Your task to perform on an android device: all mails in gmail Image 0: 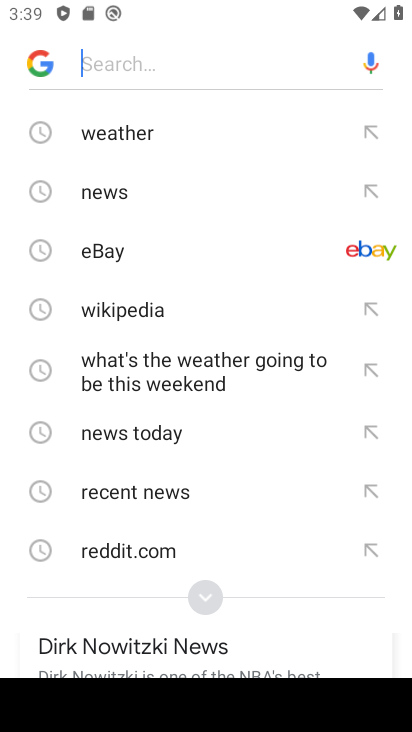
Step 0: press back button
Your task to perform on an android device: all mails in gmail Image 1: 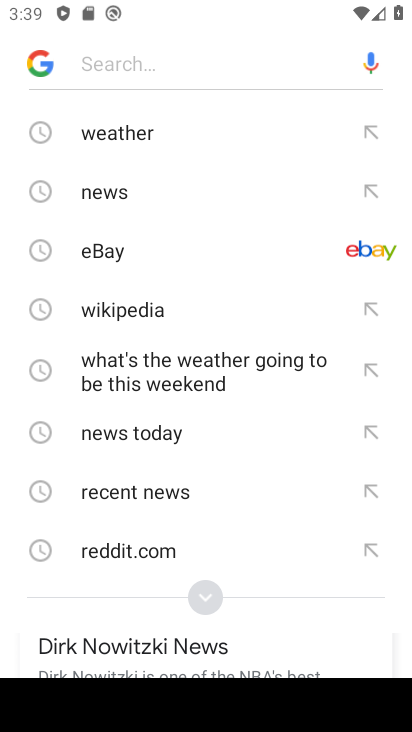
Step 1: press back button
Your task to perform on an android device: all mails in gmail Image 2: 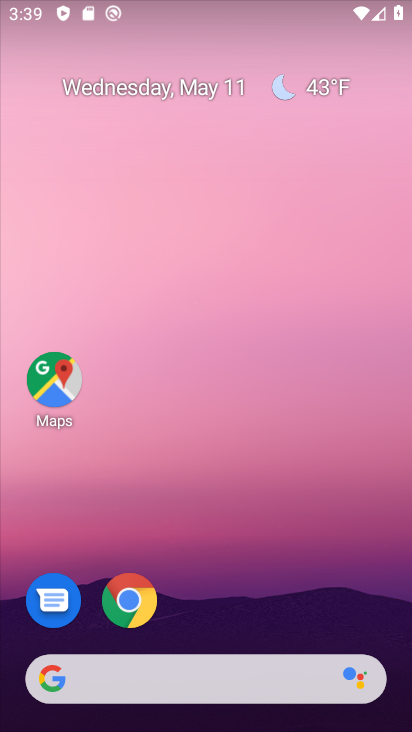
Step 2: press back button
Your task to perform on an android device: all mails in gmail Image 3: 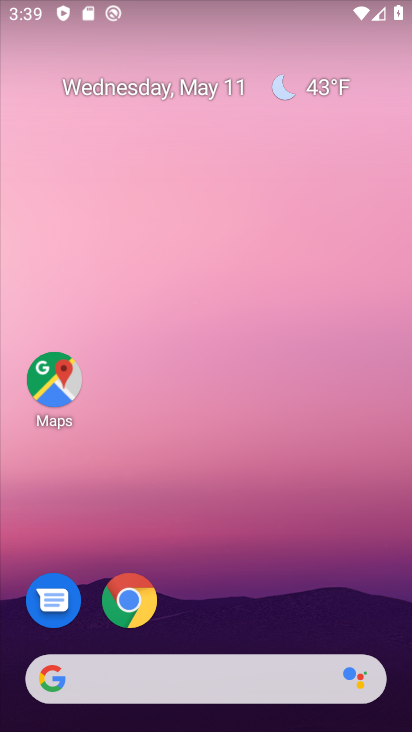
Step 3: press back button
Your task to perform on an android device: all mails in gmail Image 4: 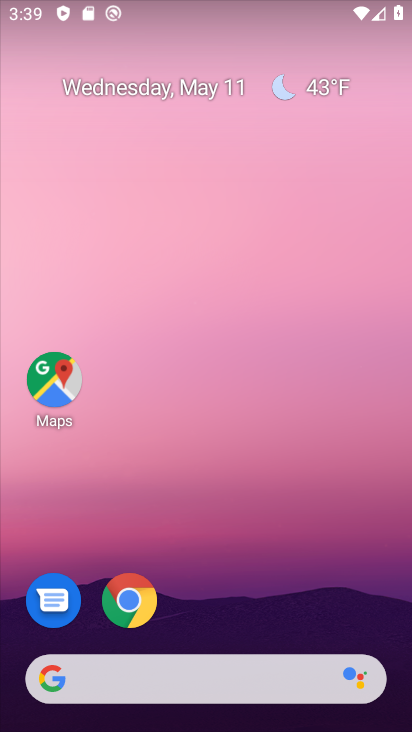
Step 4: drag from (246, 476) to (189, 220)
Your task to perform on an android device: all mails in gmail Image 5: 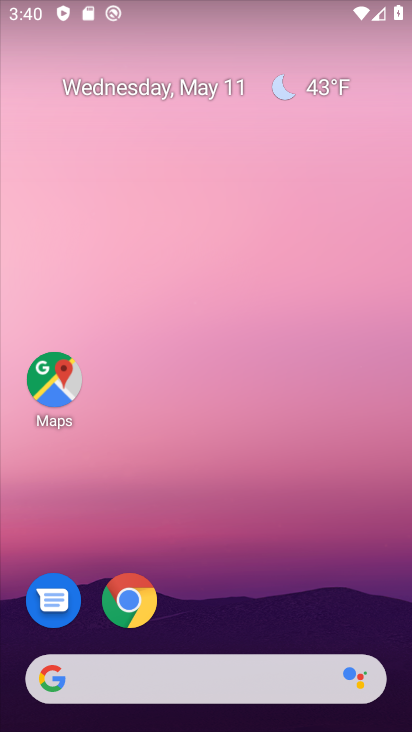
Step 5: drag from (256, 502) to (209, 220)
Your task to perform on an android device: all mails in gmail Image 6: 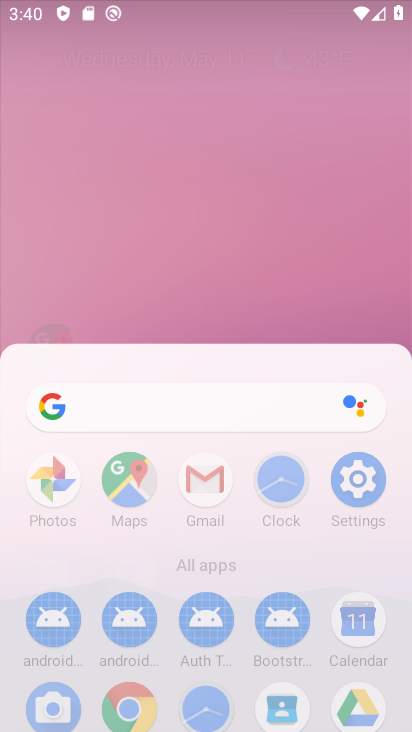
Step 6: click (305, 187)
Your task to perform on an android device: all mails in gmail Image 7: 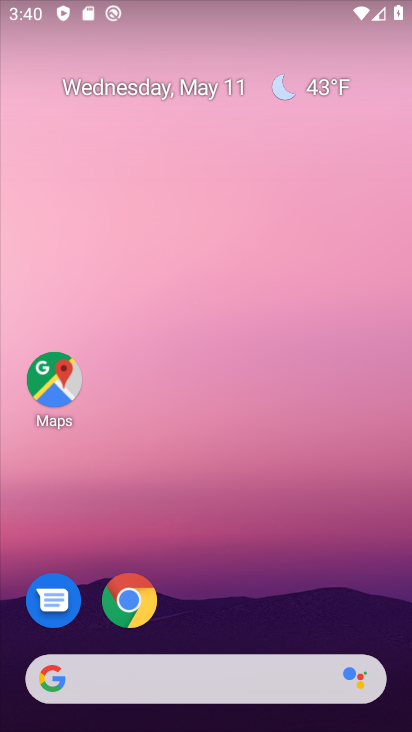
Step 7: drag from (262, 644) to (175, 103)
Your task to perform on an android device: all mails in gmail Image 8: 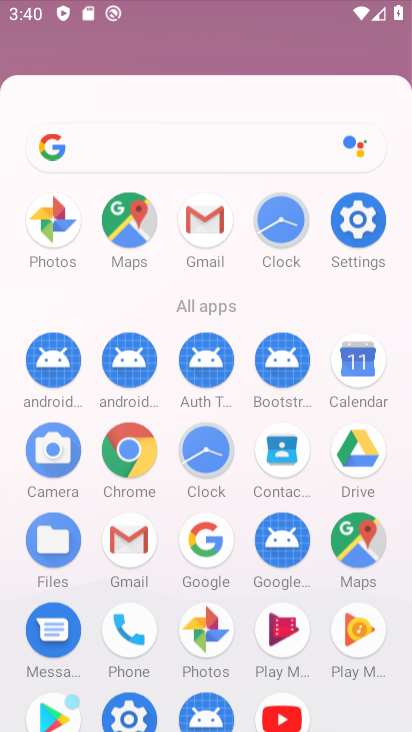
Step 8: drag from (238, 366) to (177, 50)
Your task to perform on an android device: all mails in gmail Image 9: 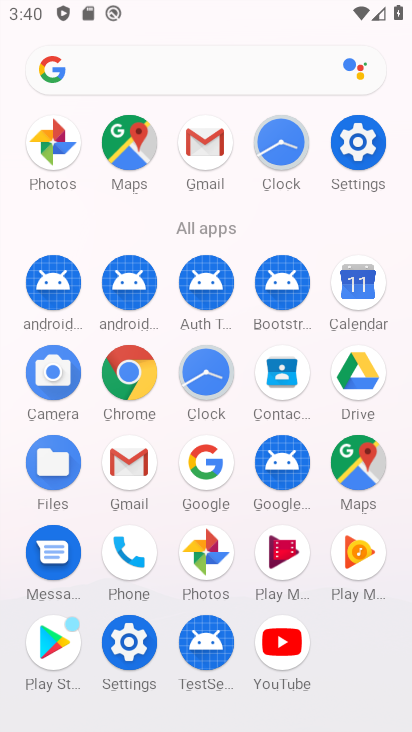
Step 9: click (192, 146)
Your task to perform on an android device: all mails in gmail Image 10: 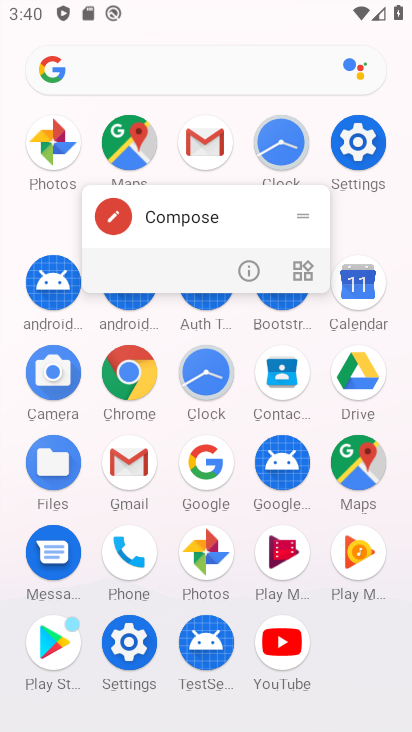
Step 10: click (203, 141)
Your task to perform on an android device: all mails in gmail Image 11: 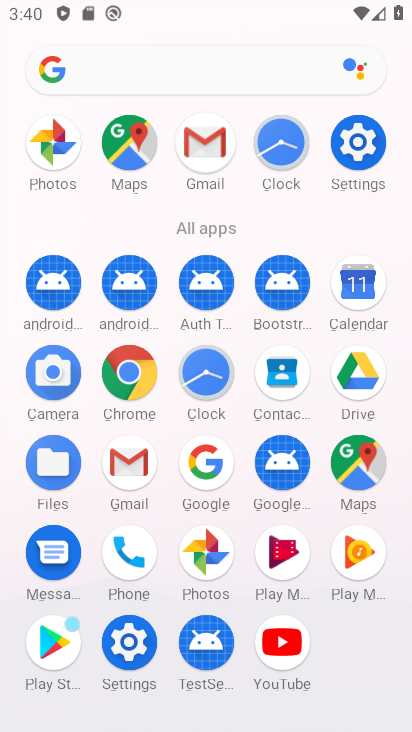
Step 11: click (205, 140)
Your task to perform on an android device: all mails in gmail Image 12: 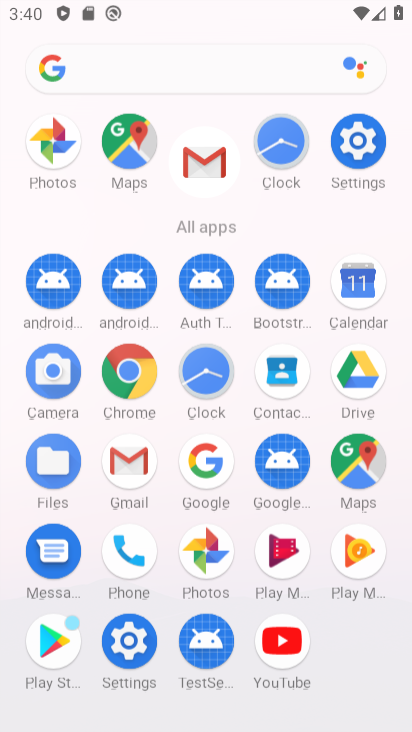
Step 12: click (207, 141)
Your task to perform on an android device: all mails in gmail Image 13: 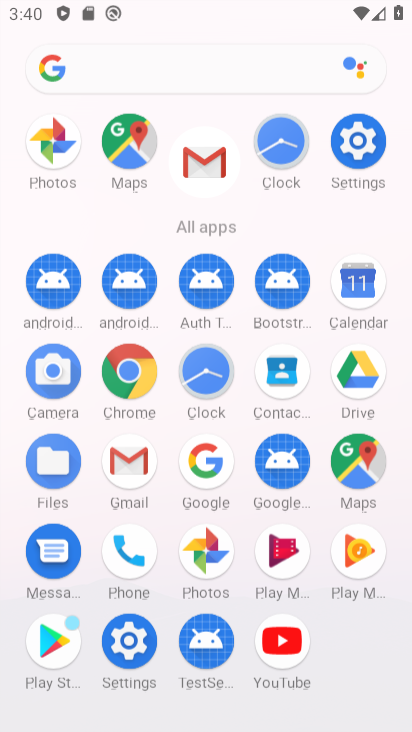
Step 13: click (208, 146)
Your task to perform on an android device: all mails in gmail Image 14: 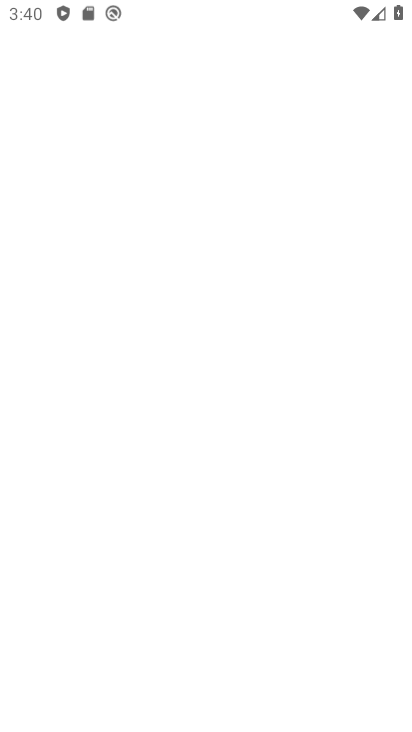
Step 14: click (209, 165)
Your task to perform on an android device: all mails in gmail Image 15: 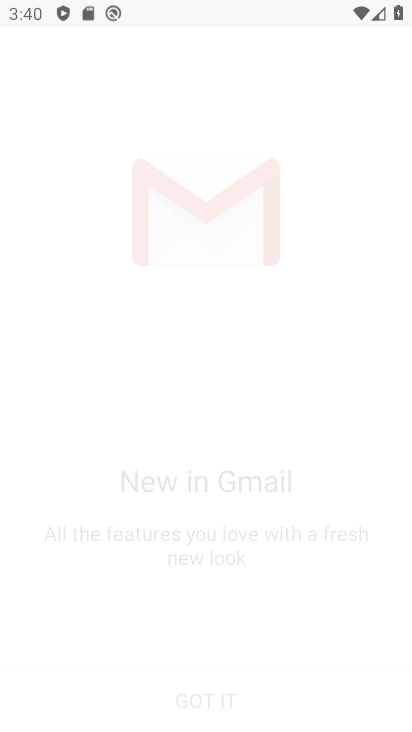
Step 15: click (202, 177)
Your task to perform on an android device: all mails in gmail Image 16: 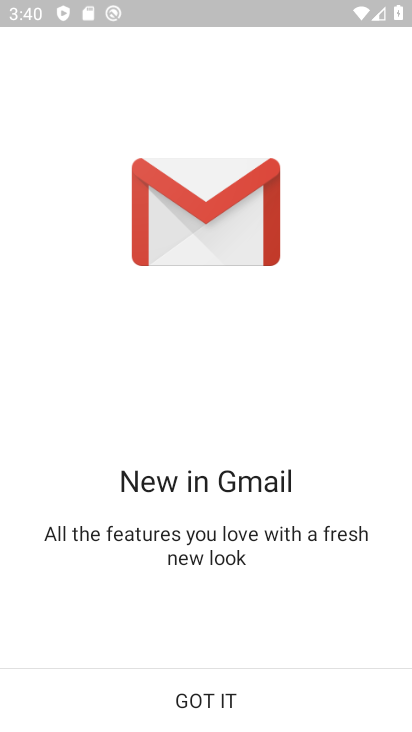
Step 16: click (212, 698)
Your task to perform on an android device: all mails in gmail Image 17: 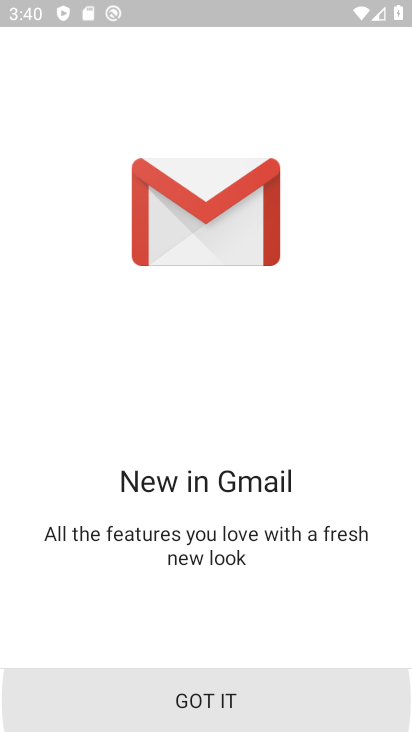
Step 17: click (212, 698)
Your task to perform on an android device: all mails in gmail Image 18: 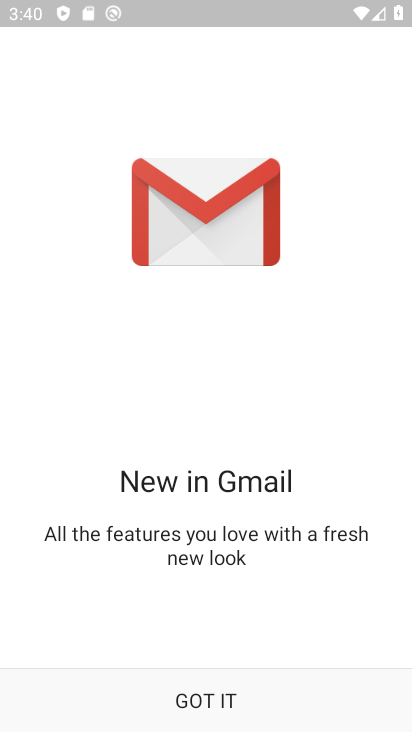
Step 18: click (213, 699)
Your task to perform on an android device: all mails in gmail Image 19: 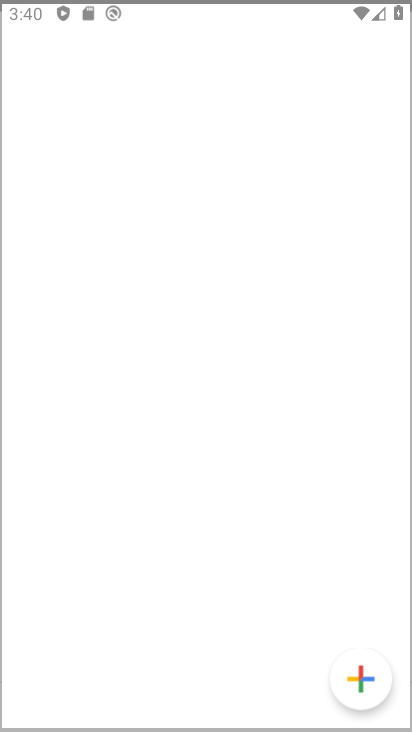
Step 19: click (208, 703)
Your task to perform on an android device: all mails in gmail Image 20: 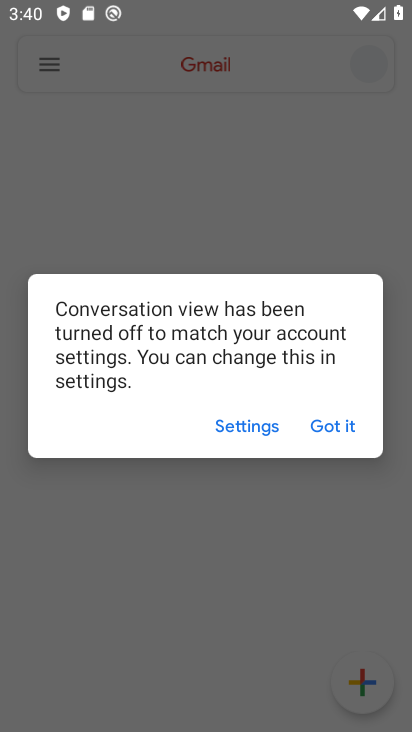
Step 20: click (329, 414)
Your task to perform on an android device: all mails in gmail Image 21: 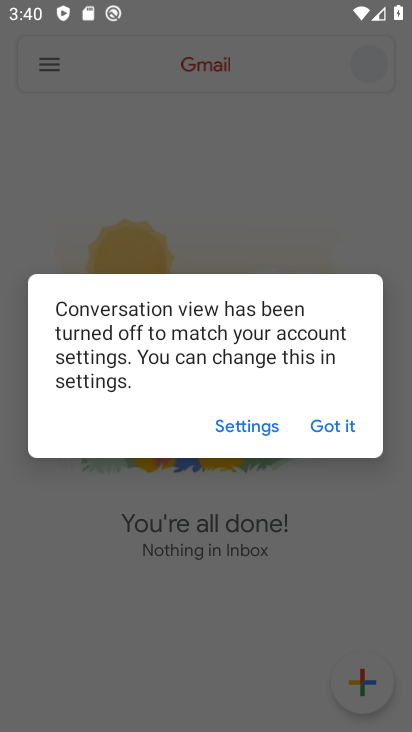
Step 21: click (333, 423)
Your task to perform on an android device: all mails in gmail Image 22: 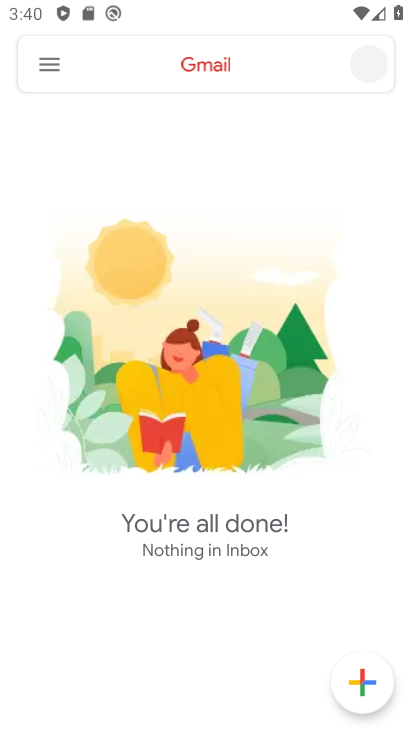
Step 22: click (334, 423)
Your task to perform on an android device: all mails in gmail Image 23: 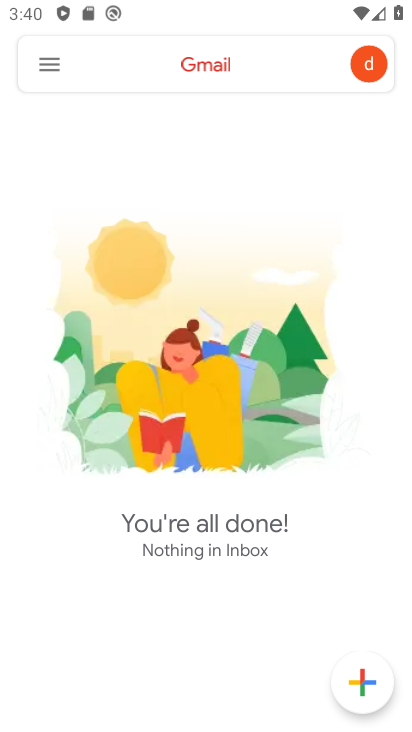
Step 23: click (334, 423)
Your task to perform on an android device: all mails in gmail Image 24: 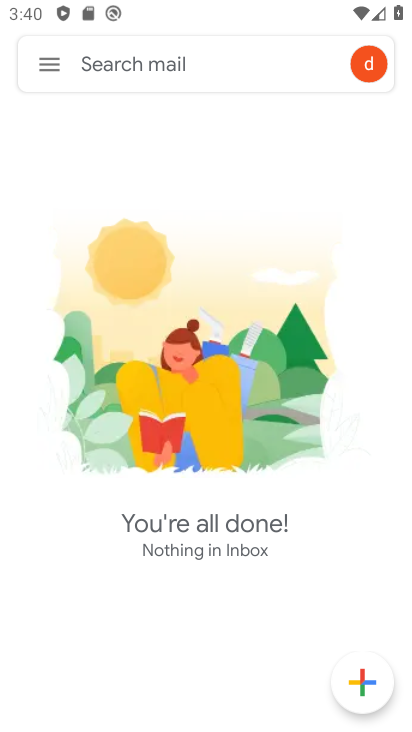
Step 24: click (47, 63)
Your task to perform on an android device: all mails in gmail Image 25: 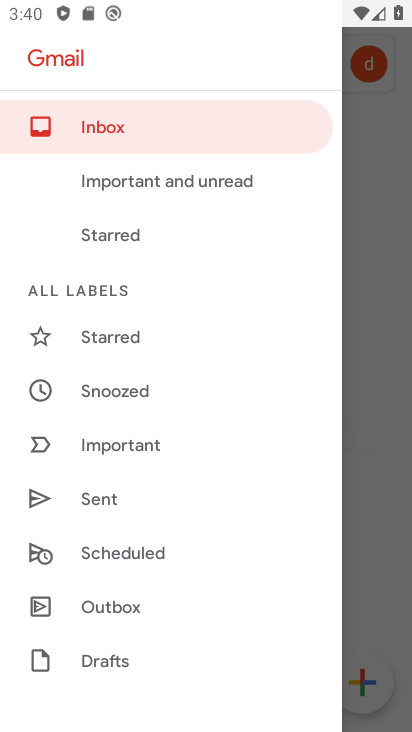
Step 25: drag from (142, 495) to (173, 206)
Your task to perform on an android device: all mails in gmail Image 26: 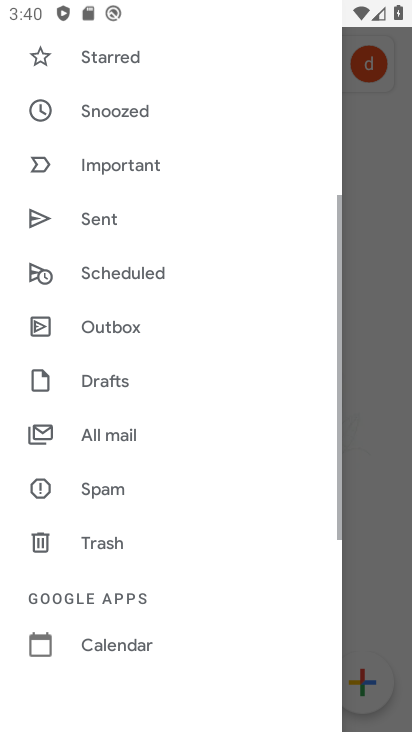
Step 26: drag from (115, 389) to (115, 218)
Your task to perform on an android device: all mails in gmail Image 27: 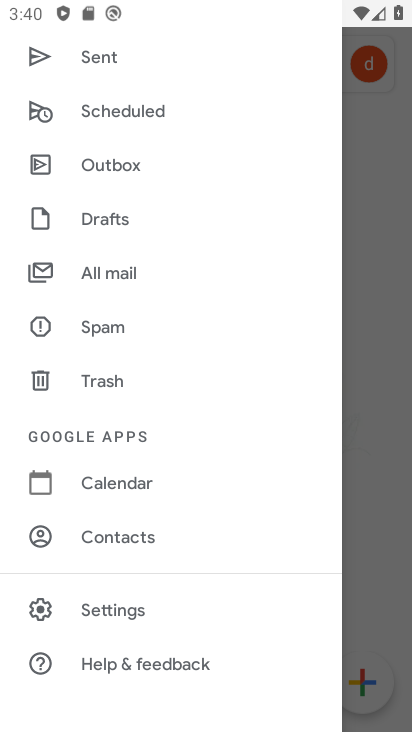
Step 27: click (107, 274)
Your task to perform on an android device: all mails in gmail Image 28: 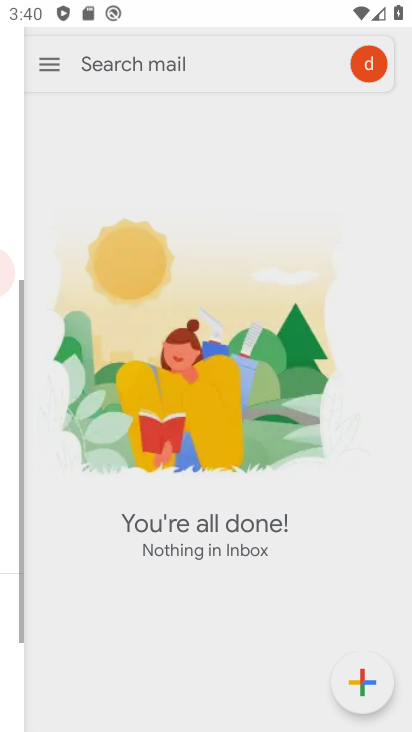
Step 28: click (108, 273)
Your task to perform on an android device: all mails in gmail Image 29: 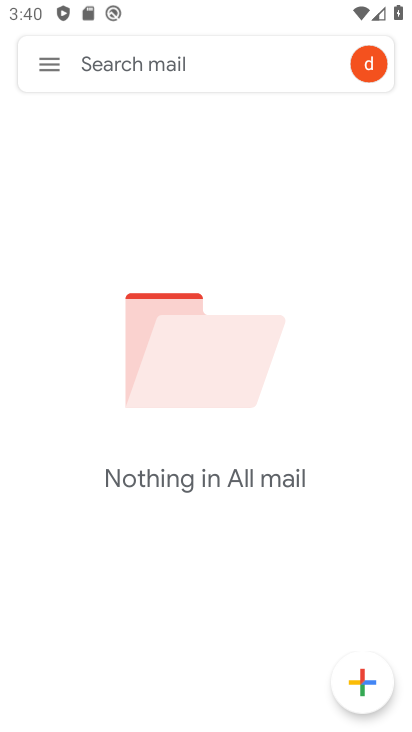
Step 29: task complete